Your task to perform on an android device: turn off translation in the chrome app Image 0: 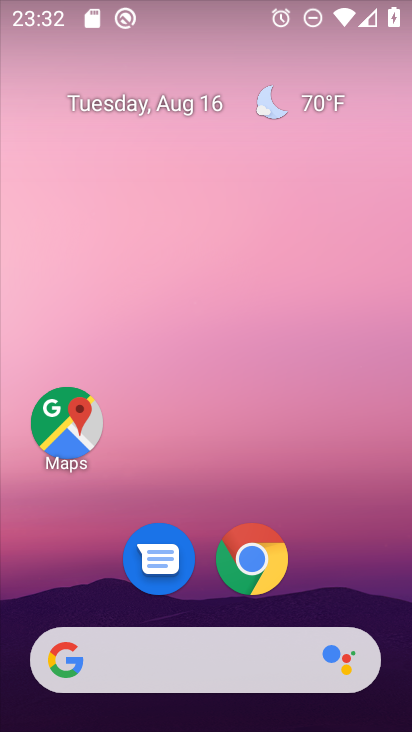
Step 0: click (253, 560)
Your task to perform on an android device: turn off translation in the chrome app Image 1: 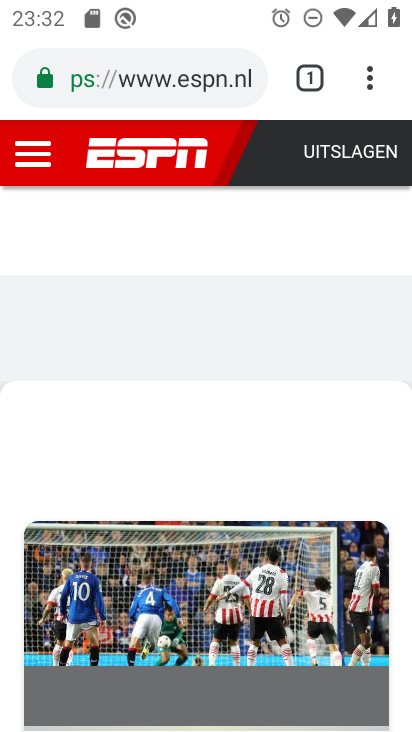
Step 1: click (379, 87)
Your task to perform on an android device: turn off translation in the chrome app Image 2: 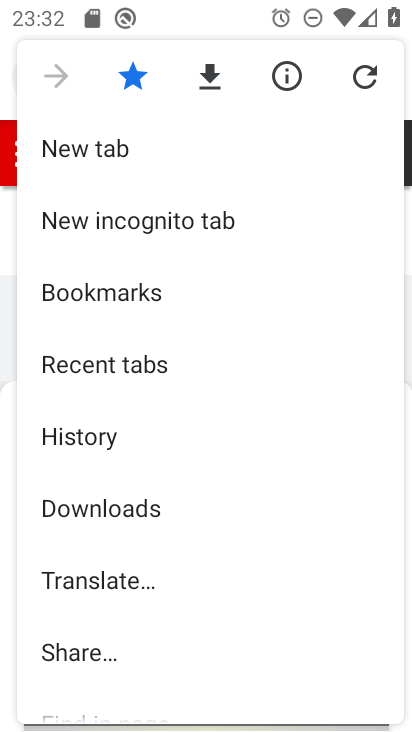
Step 2: drag from (171, 507) to (201, 433)
Your task to perform on an android device: turn off translation in the chrome app Image 3: 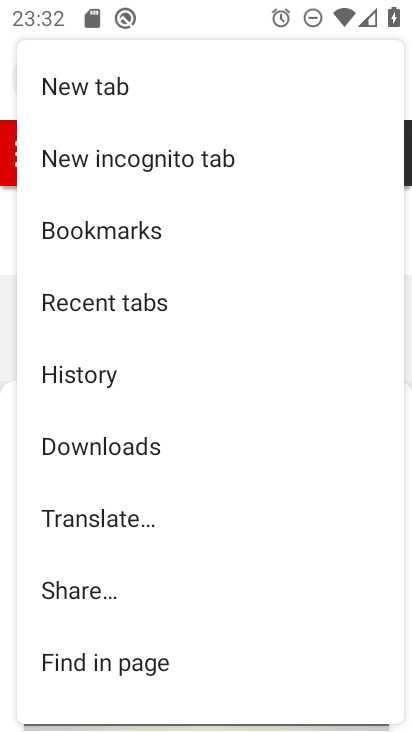
Step 3: drag from (146, 555) to (186, 465)
Your task to perform on an android device: turn off translation in the chrome app Image 4: 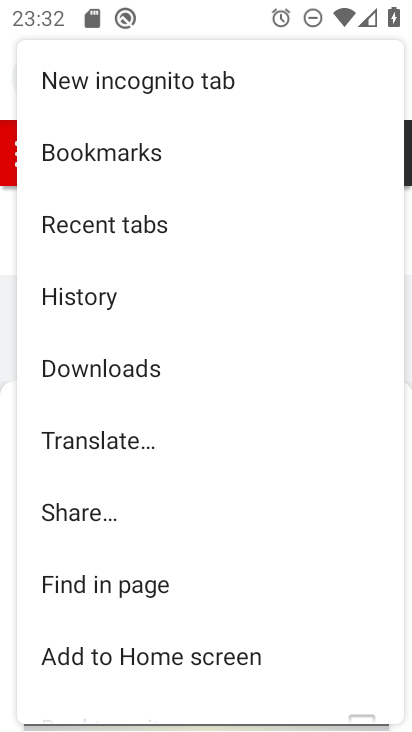
Step 4: drag from (145, 597) to (192, 488)
Your task to perform on an android device: turn off translation in the chrome app Image 5: 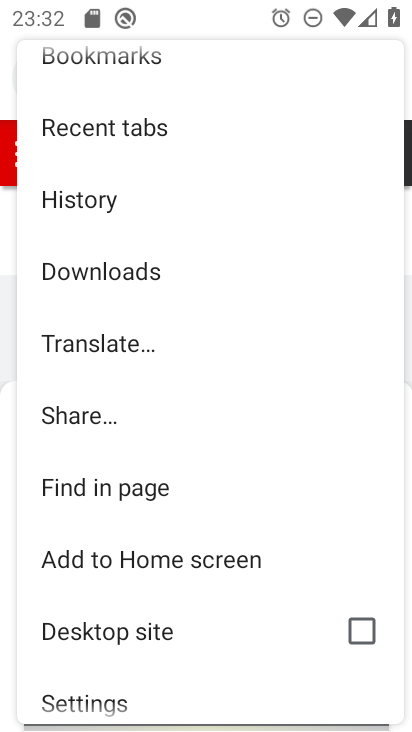
Step 5: drag from (152, 586) to (240, 448)
Your task to perform on an android device: turn off translation in the chrome app Image 6: 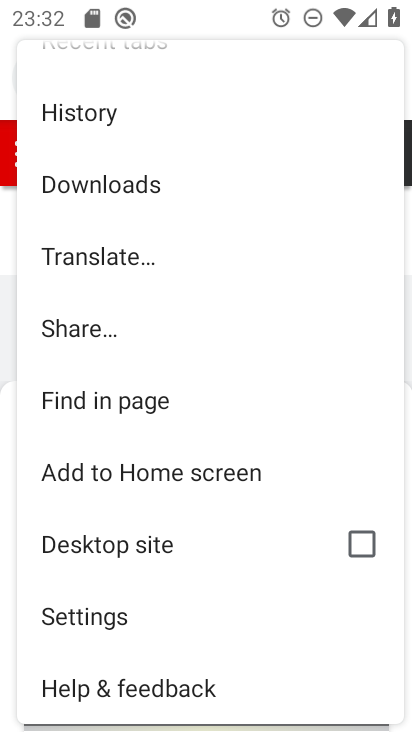
Step 6: click (105, 618)
Your task to perform on an android device: turn off translation in the chrome app Image 7: 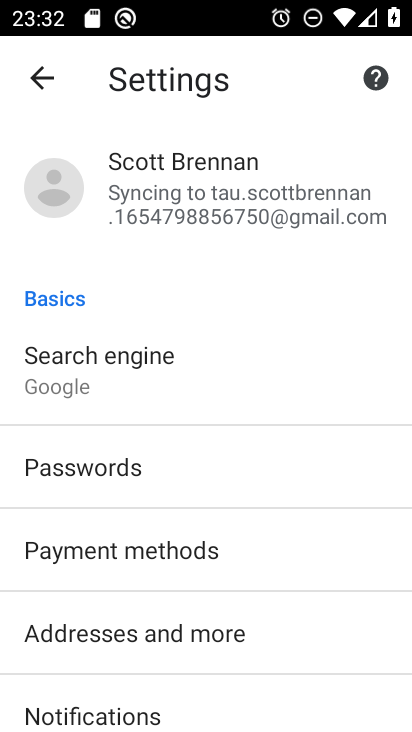
Step 7: drag from (197, 492) to (244, 368)
Your task to perform on an android device: turn off translation in the chrome app Image 8: 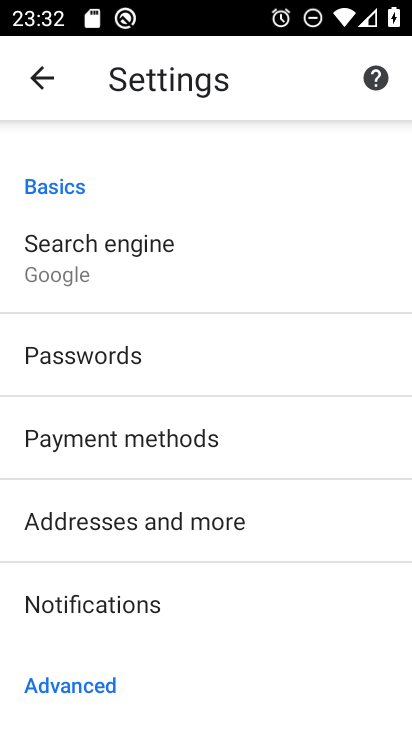
Step 8: drag from (164, 495) to (253, 382)
Your task to perform on an android device: turn off translation in the chrome app Image 9: 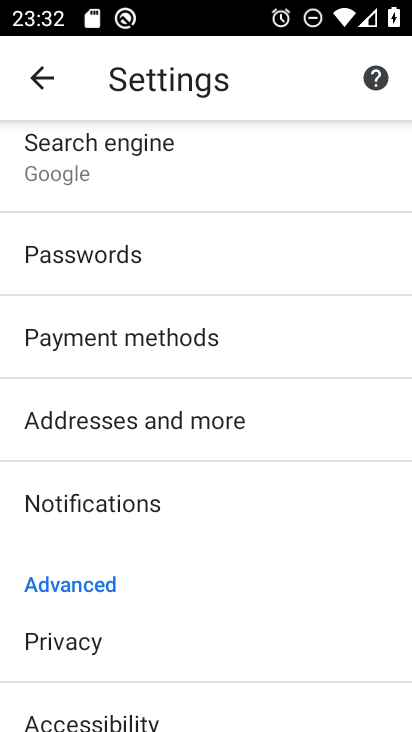
Step 9: drag from (179, 534) to (265, 412)
Your task to perform on an android device: turn off translation in the chrome app Image 10: 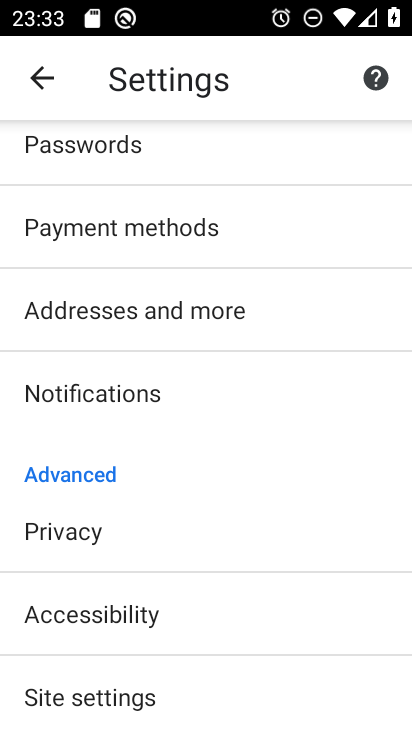
Step 10: drag from (186, 522) to (265, 416)
Your task to perform on an android device: turn off translation in the chrome app Image 11: 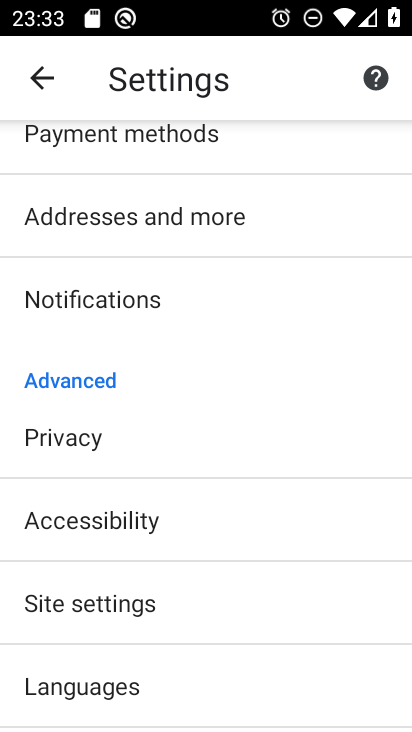
Step 11: drag from (201, 601) to (274, 505)
Your task to perform on an android device: turn off translation in the chrome app Image 12: 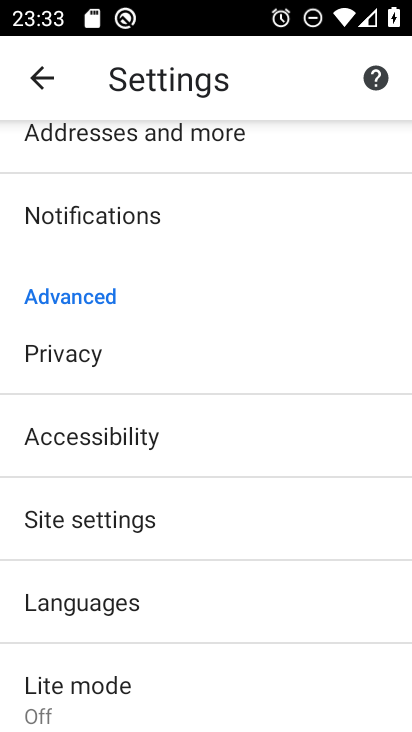
Step 12: click (86, 611)
Your task to perform on an android device: turn off translation in the chrome app Image 13: 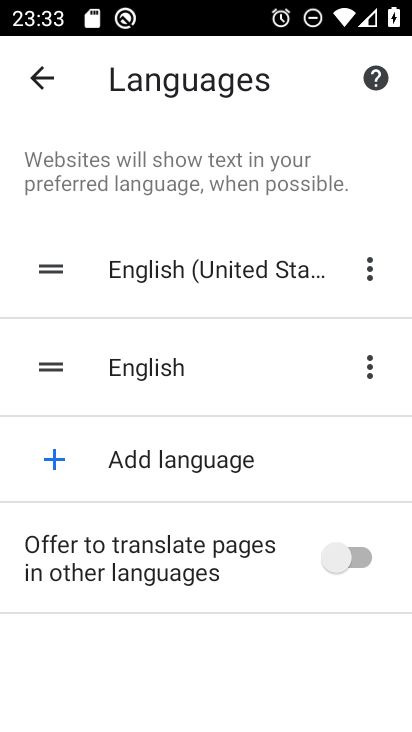
Step 13: task complete